Your task to perform on an android device: Open the calendar and show me this week's events? Image 0: 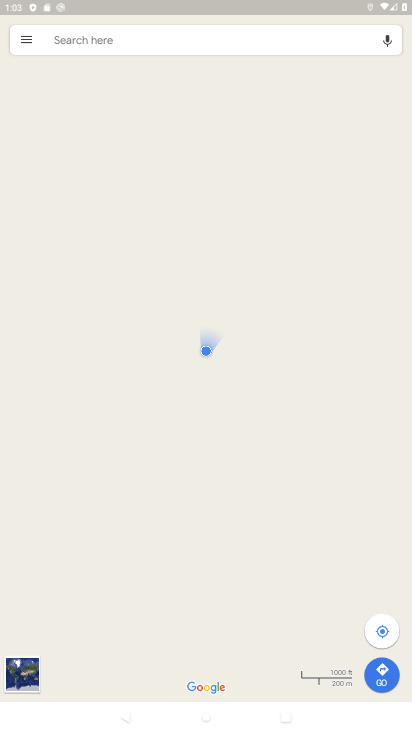
Step 0: press home button
Your task to perform on an android device: Open the calendar and show me this week's events? Image 1: 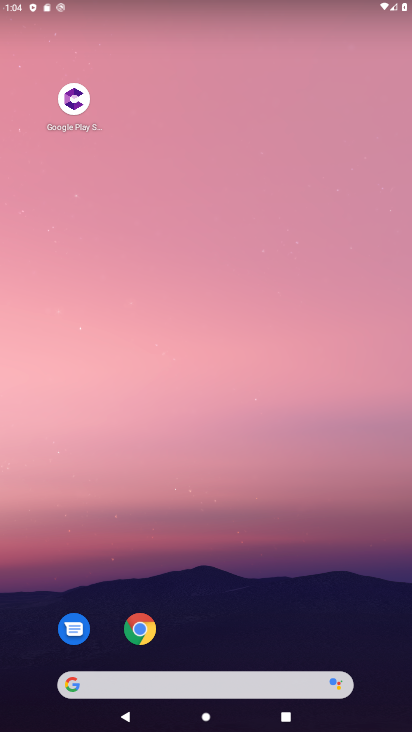
Step 1: drag from (258, 638) to (238, 1)
Your task to perform on an android device: Open the calendar and show me this week's events? Image 2: 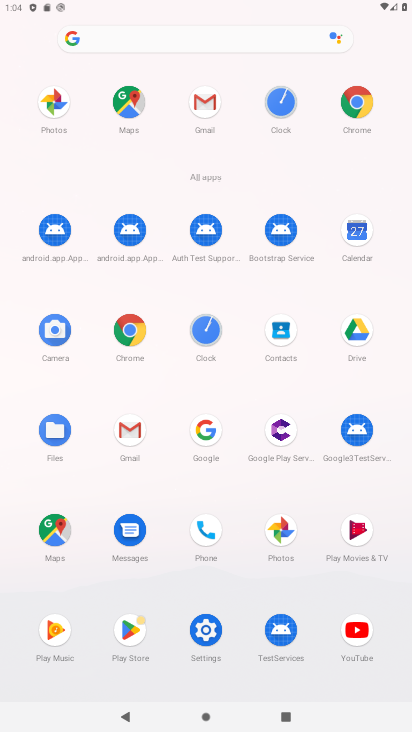
Step 2: click (355, 236)
Your task to perform on an android device: Open the calendar and show me this week's events? Image 3: 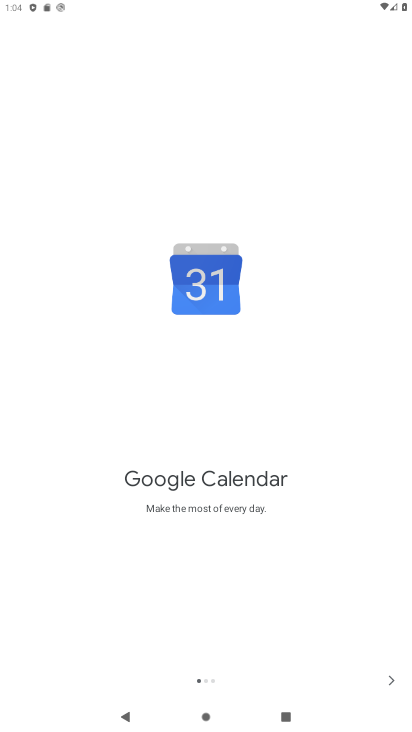
Step 3: click (389, 678)
Your task to perform on an android device: Open the calendar and show me this week's events? Image 4: 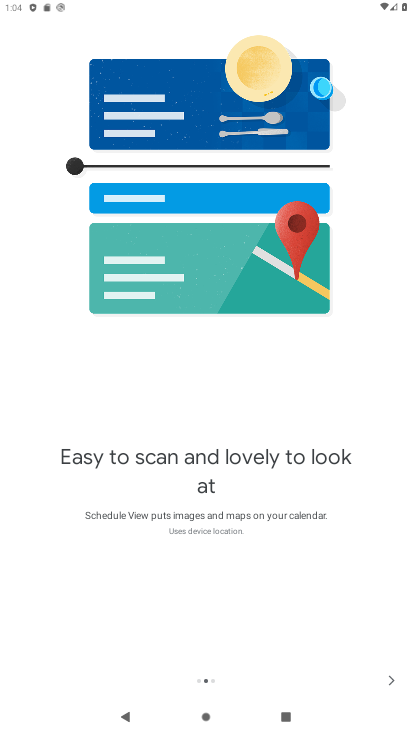
Step 4: click (393, 678)
Your task to perform on an android device: Open the calendar and show me this week's events? Image 5: 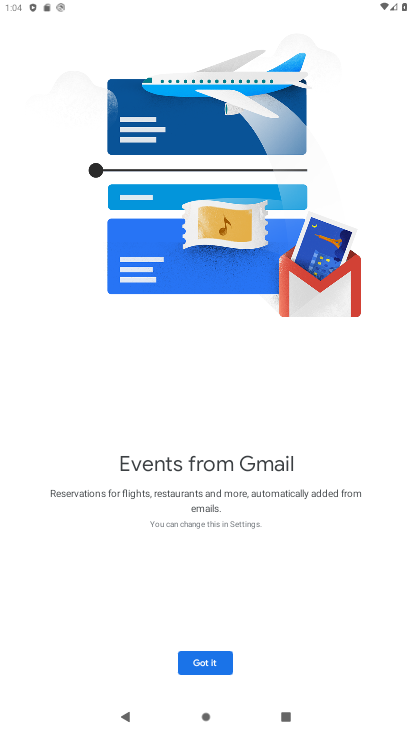
Step 5: click (214, 662)
Your task to perform on an android device: Open the calendar and show me this week's events? Image 6: 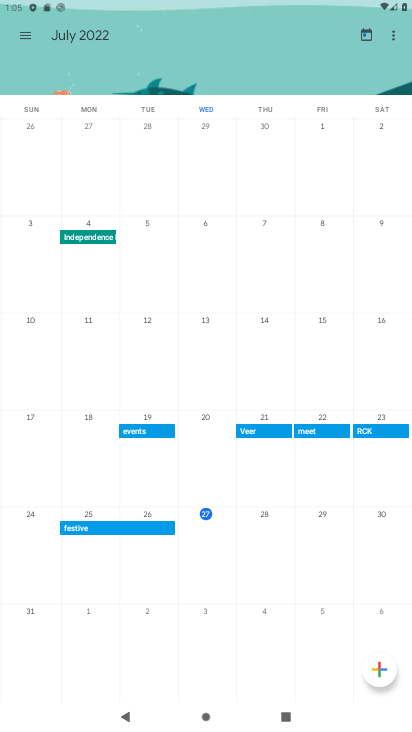
Step 6: click (24, 30)
Your task to perform on an android device: Open the calendar and show me this week's events? Image 7: 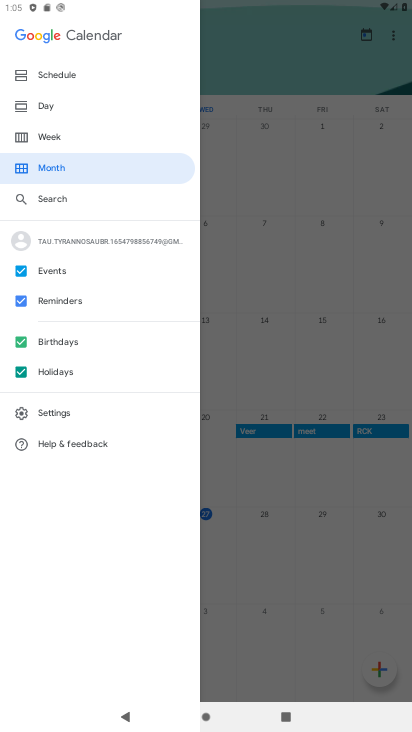
Step 7: click (49, 133)
Your task to perform on an android device: Open the calendar and show me this week's events? Image 8: 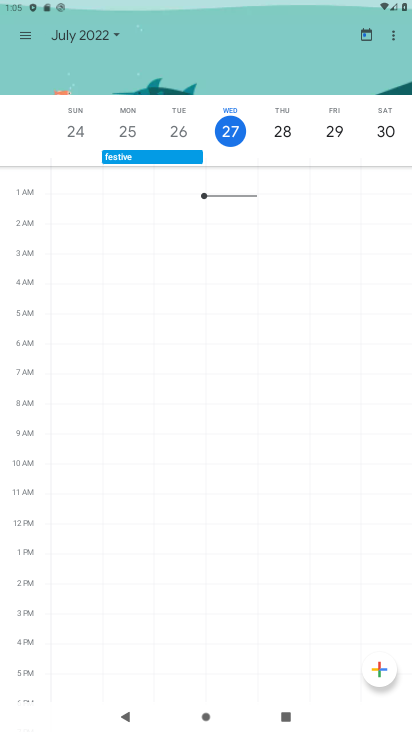
Step 8: task complete